Your task to perform on an android device: turn on javascript in the chrome app Image 0: 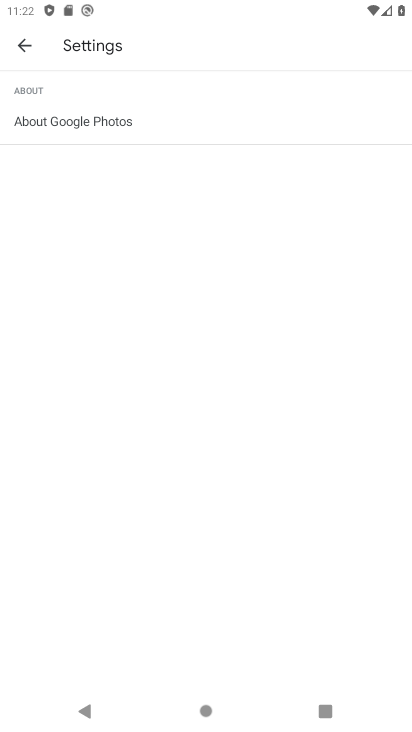
Step 0: press home button
Your task to perform on an android device: turn on javascript in the chrome app Image 1: 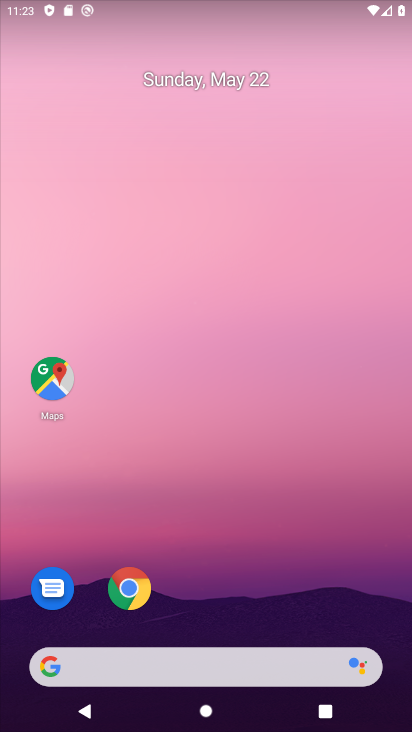
Step 1: drag from (221, 687) to (192, 50)
Your task to perform on an android device: turn on javascript in the chrome app Image 2: 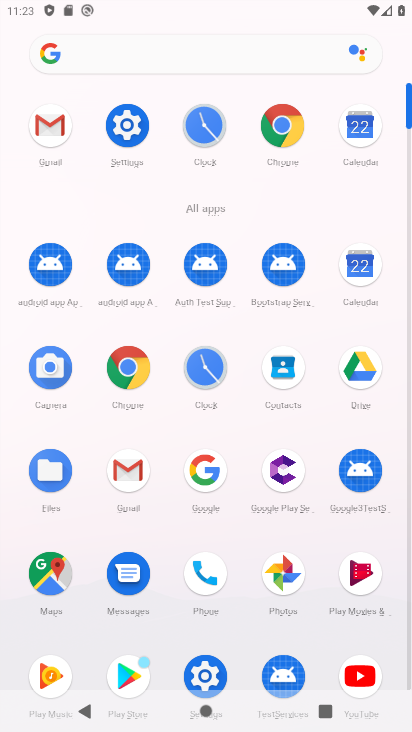
Step 2: click (286, 119)
Your task to perform on an android device: turn on javascript in the chrome app Image 3: 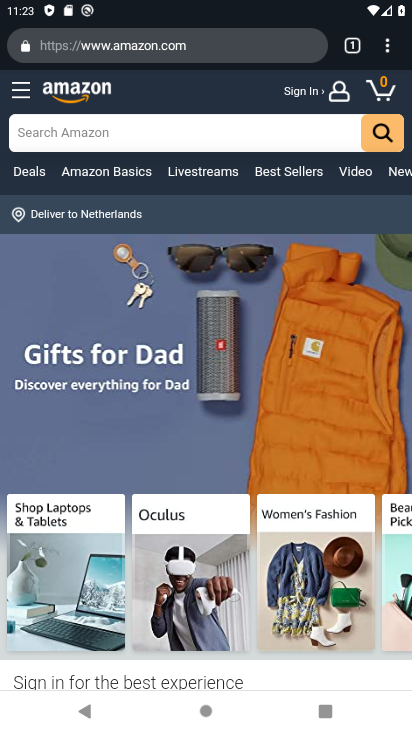
Step 3: click (383, 46)
Your task to perform on an android device: turn on javascript in the chrome app Image 4: 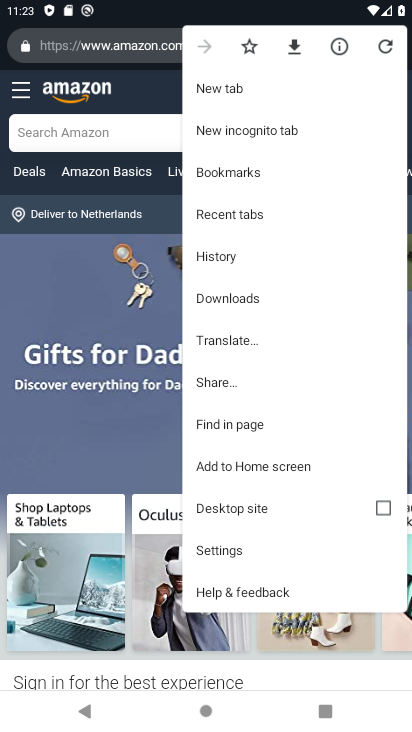
Step 4: click (225, 547)
Your task to perform on an android device: turn on javascript in the chrome app Image 5: 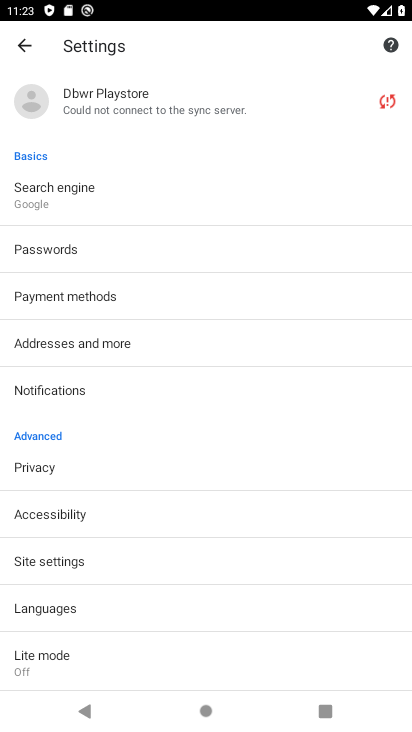
Step 5: click (85, 561)
Your task to perform on an android device: turn on javascript in the chrome app Image 6: 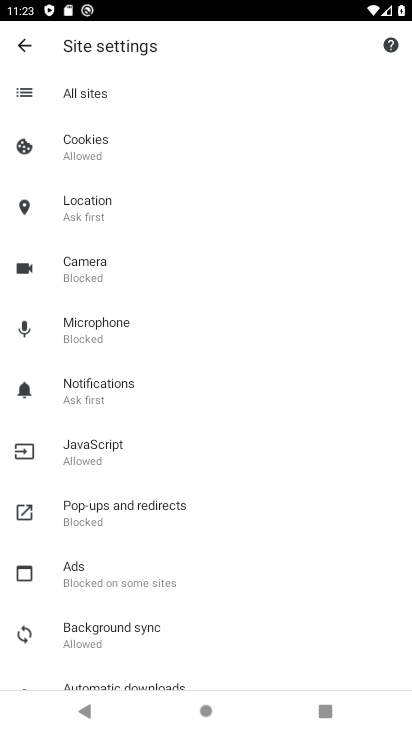
Step 6: click (113, 455)
Your task to perform on an android device: turn on javascript in the chrome app Image 7: 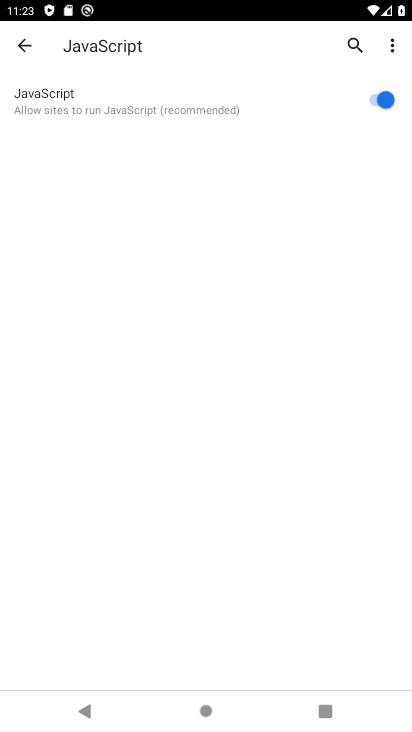
Step 7: task complete